Your task to perform on an android device: set the stopwatch Image 0: 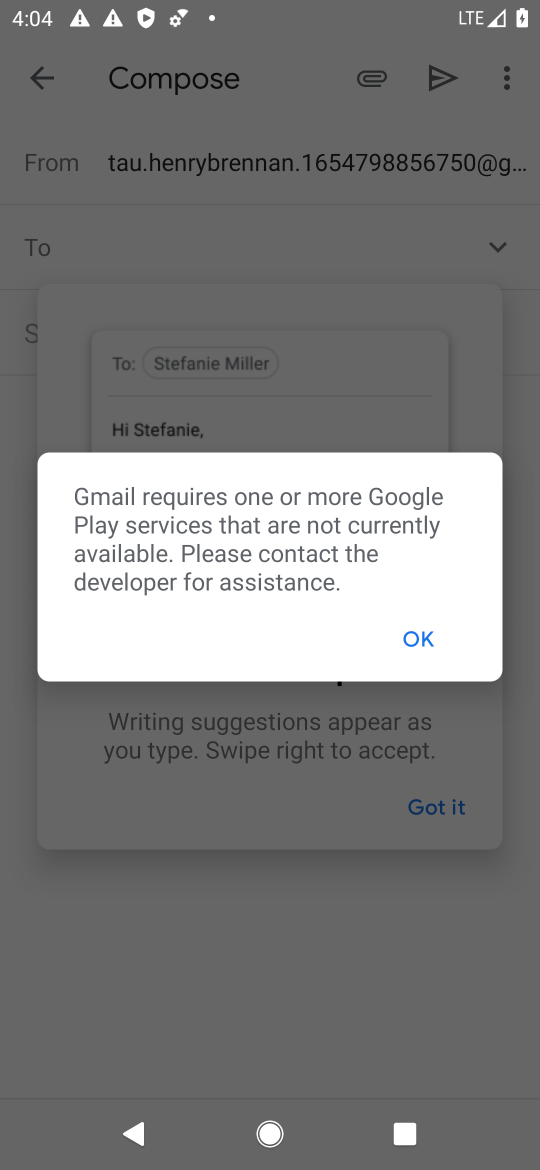
Step 0: press home button
Your task to perform on an android device: set the stopwatch Image 1: 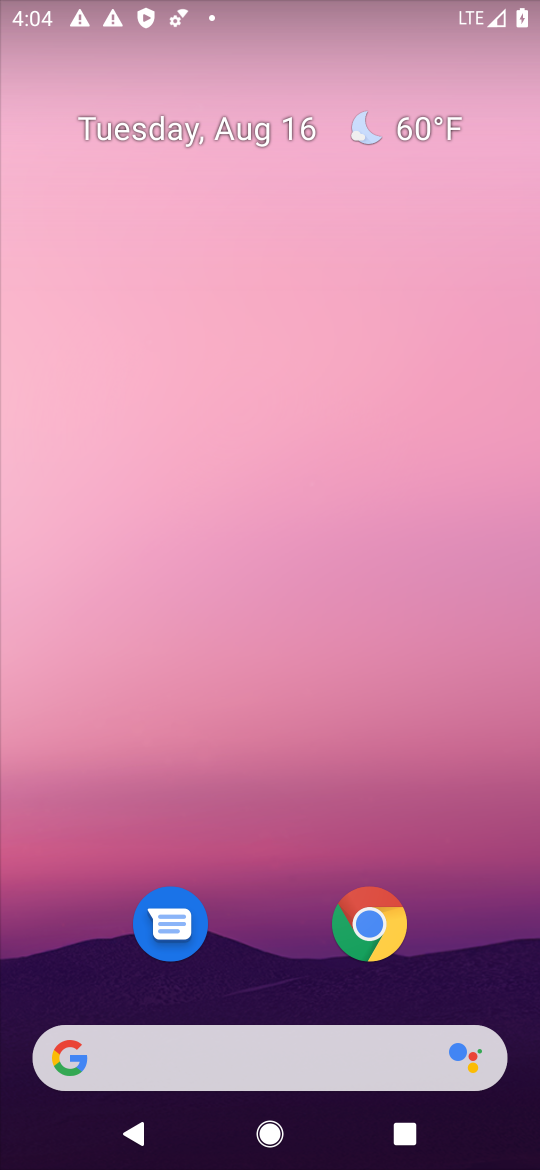
Step 1: drag from (283, 791) to (188, 33)
Your task to perform on an android device: set the stopwatch Image 2: 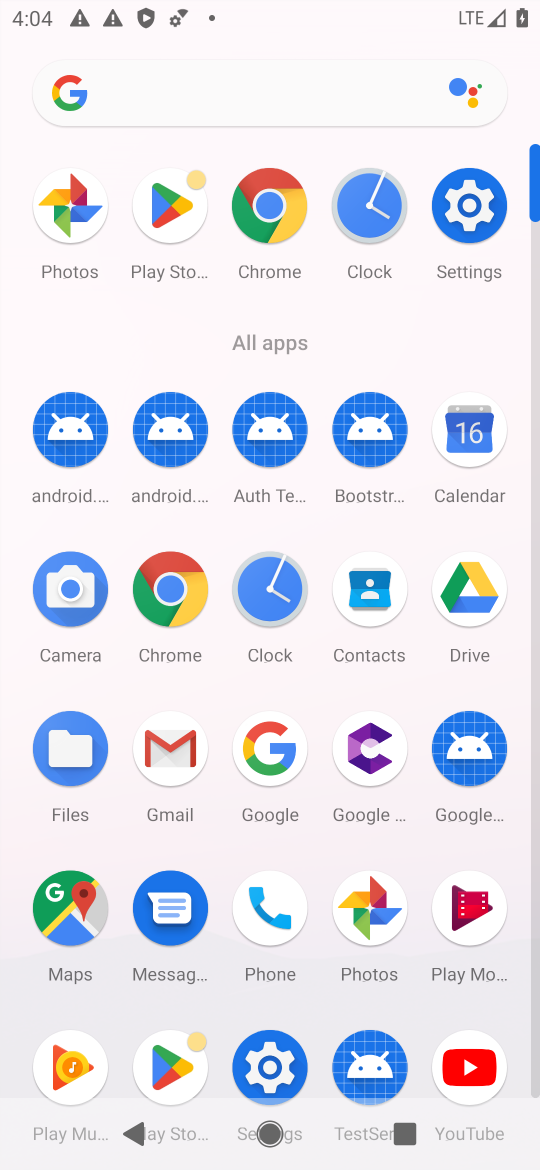
Step 2: click (476, 194)
Your task to perform on an android device: set the stopwatch Image 3: 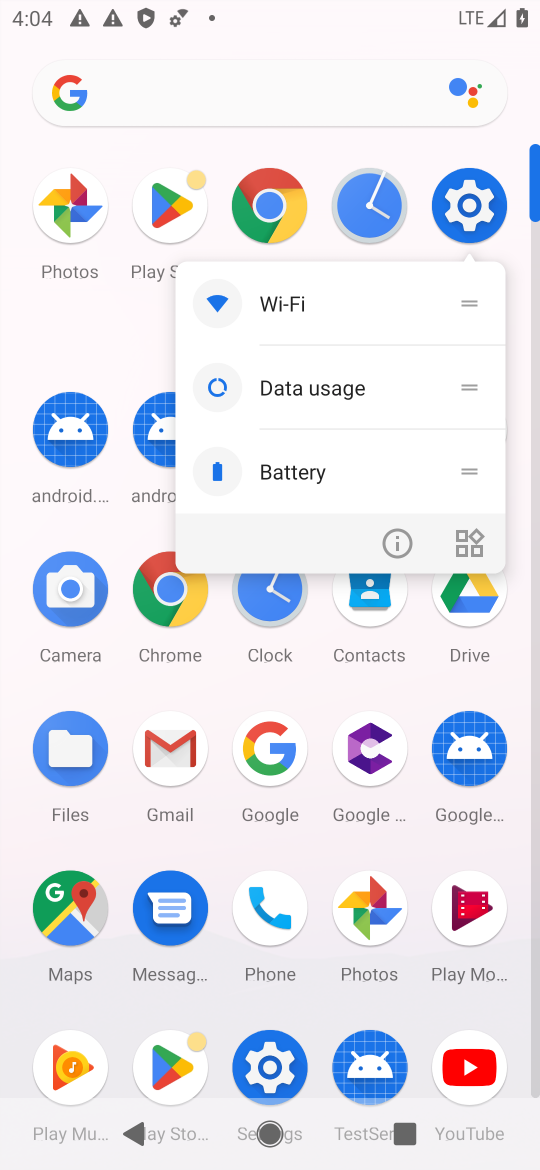
Step 3: click (376, 218)
Your task to perform on an android device: set the stopwatch Image 4: 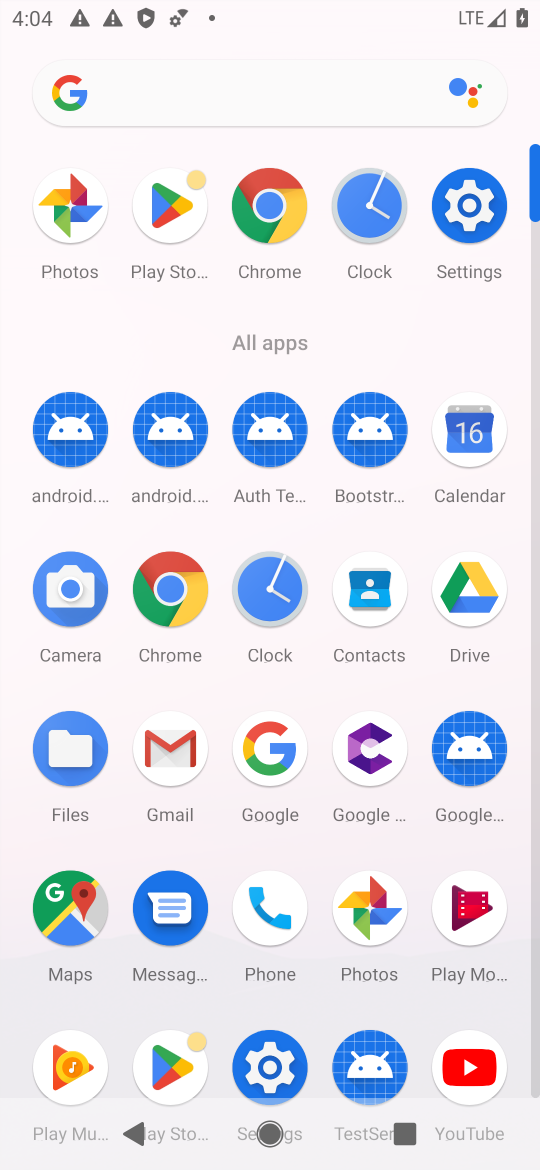
Step 4: click (376, 218)
Your task to perform on an android device: set the stopwatch Image 5: 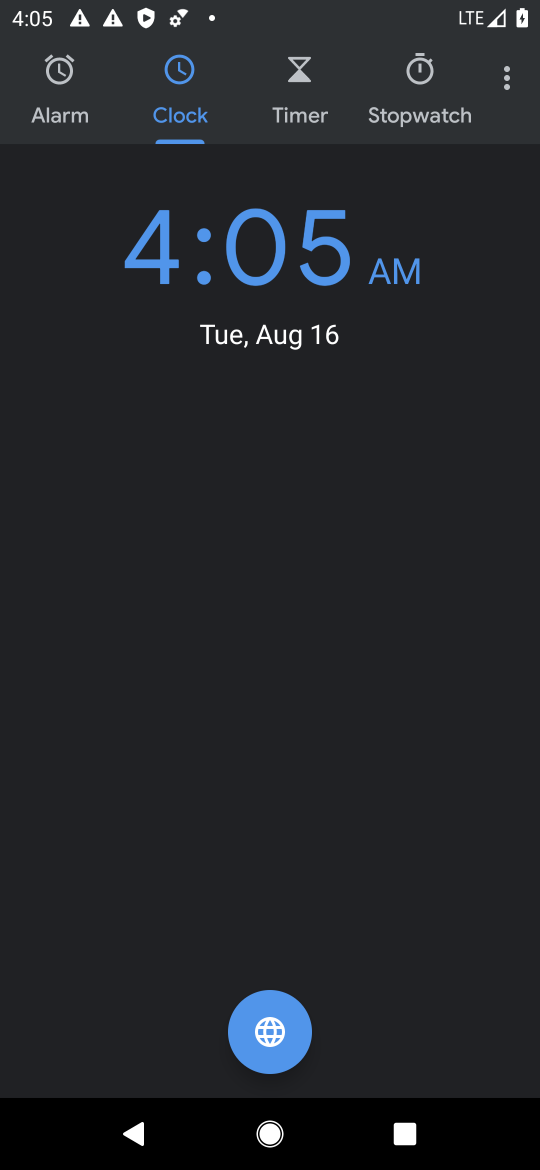
Step 5: click (416, 113)
Your task to perform on an android device: set the stopwatch Image 6: 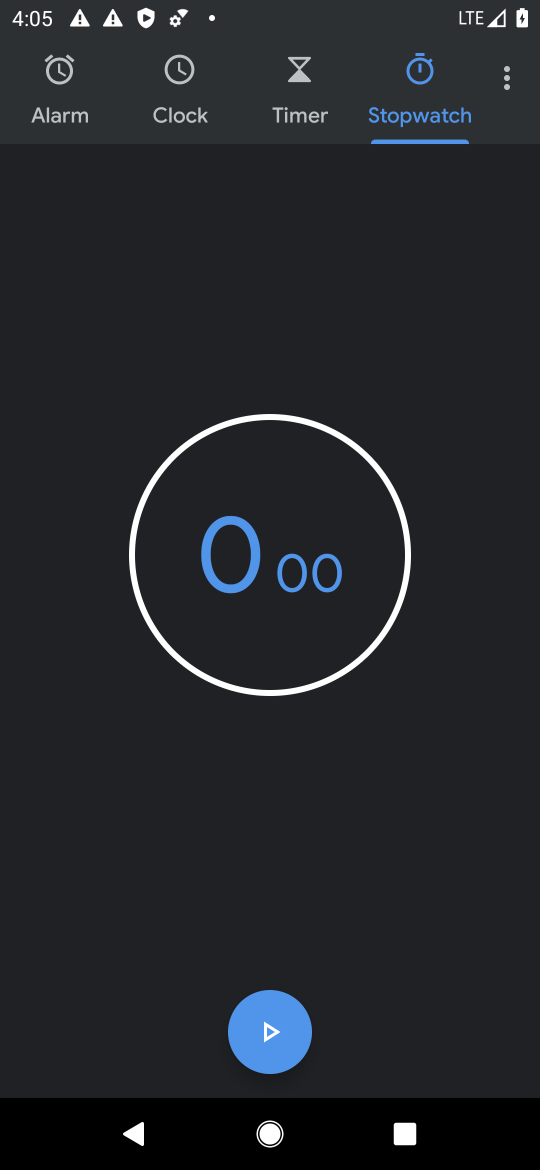
Step 6: click (274, 1029)
Your task to perform on an android device: set the stopwatch Image 7: 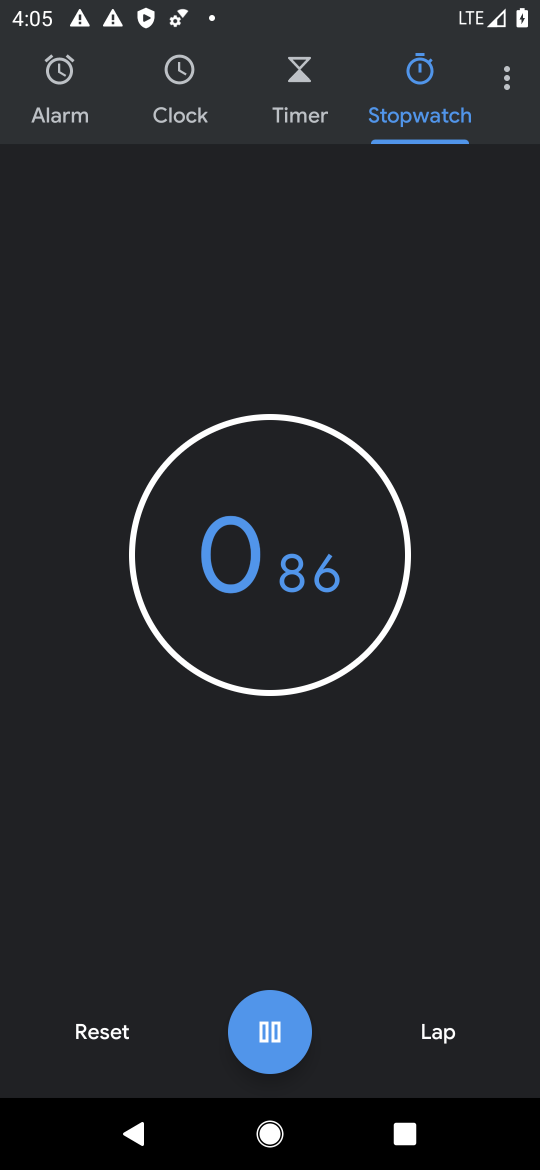
Step 7: task complete